Your task to perform on an android device: clear all cookies in the chrome app Image 0: 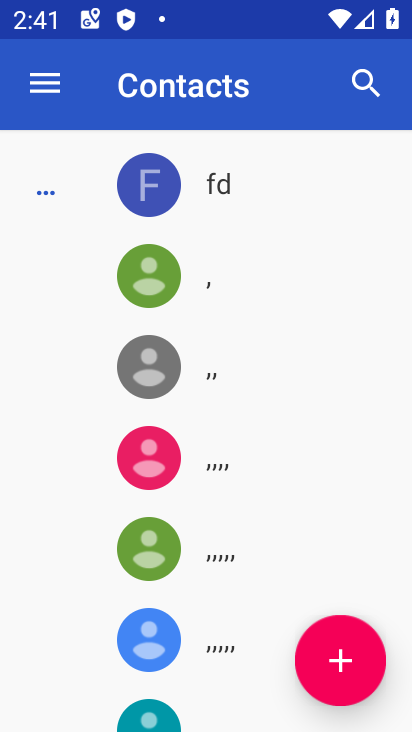
Step 0: press home button
Your task to perform on an android device: clear all cookies in the chrome app Image 1: 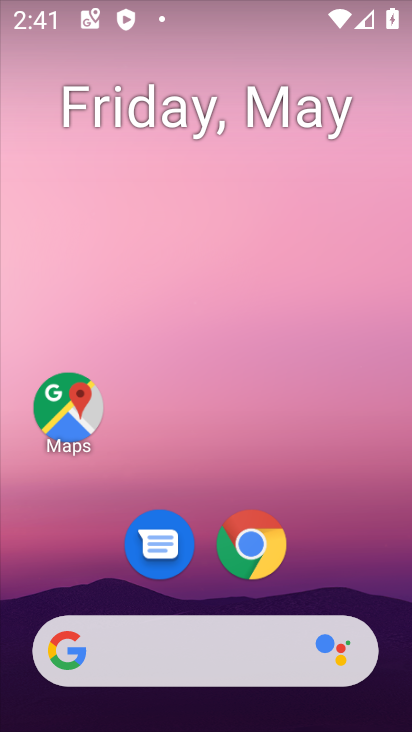
Step 1: click (232, 557)
Your task to perform on an android device: clear all cookies in the chrome app Image 2: 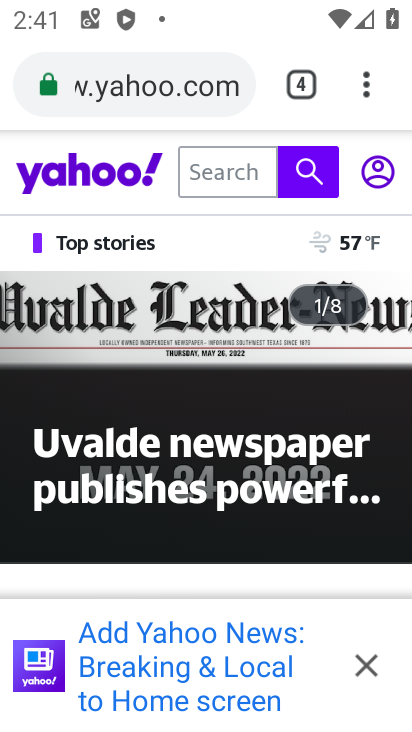
Step 2: click (378, 79)
Your task to perform on an android device: clear all cookies in the chrome app Image 3: 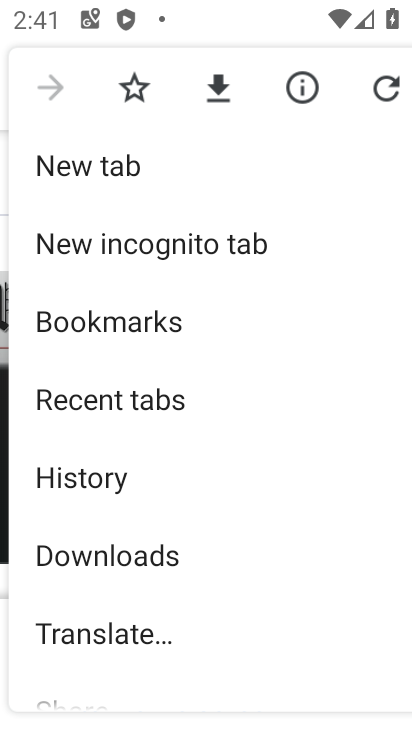
Step 3: click (102, 489)
Your task to perform on an android device: clear all cookies in the chrome app Image 4: 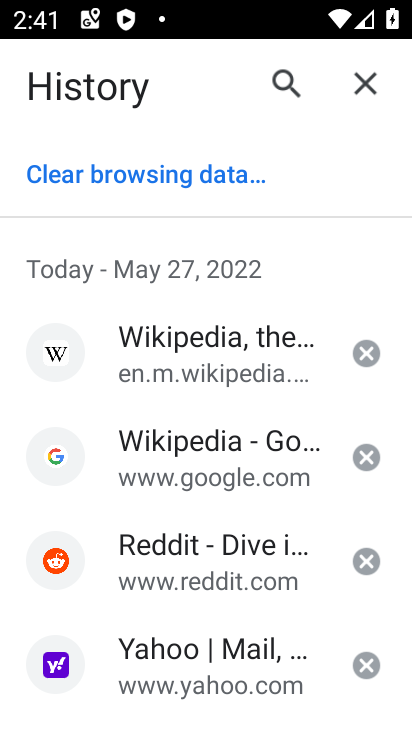
Step 4: click (133, 172)
Your task to perform on an android device: clear all cookies in the chrome app Image 5: 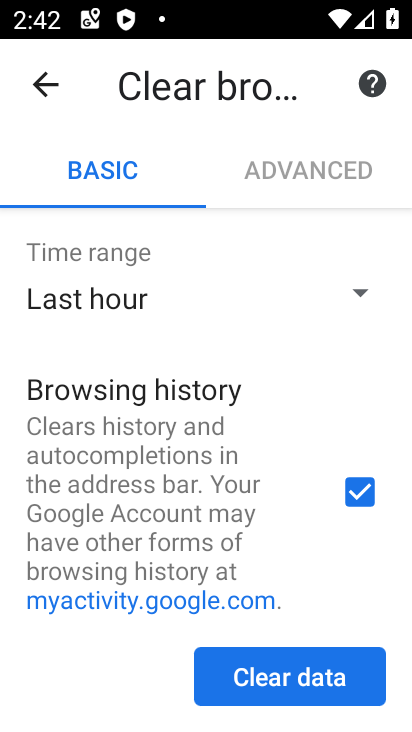
Step 5: drag from (209, 567) to (248, 290)
Your task to perform on an android device: clear all cookies in the chrome app Image 6: 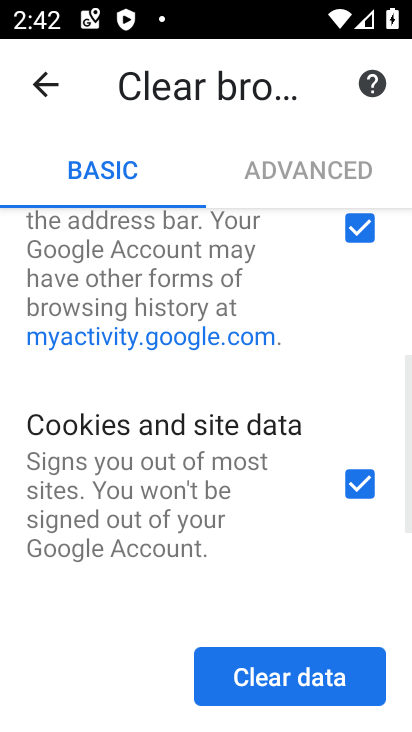
Step 6: drag from (317, 597) to (330, 275)
Your task to perform on an android device: clear all cookies in the chrome app Image 7: 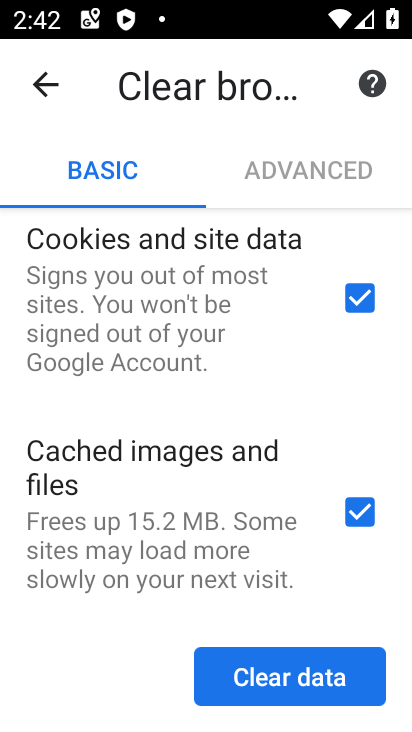
Step 7: click (293, 661)
Your task to perform on an android device: clear all cookies in the chrome app Image 8: 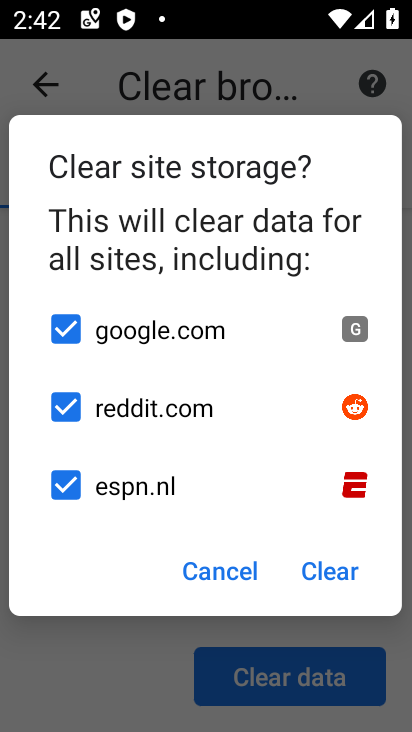
Step 8: click (328, 576)
Your task to perform on an android device: clear all cookies in the chrome app Image 9: 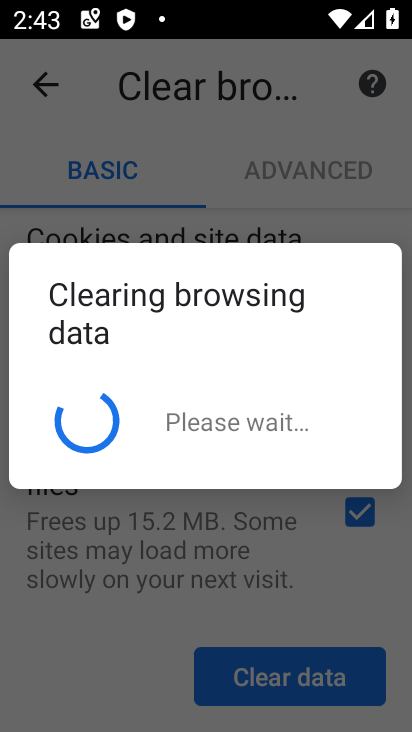
Step 9: task complete